Your task to perform on an android device: Search for pizza restaurants on Maps Image 0: 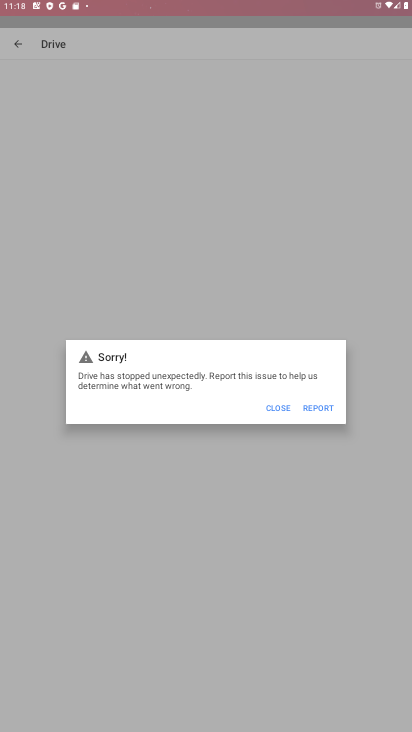
Step 0: drag from (208, 451) to (234, 203)
Your task to perform on an android device: Search for pizza restaurants on Maps Image 1: 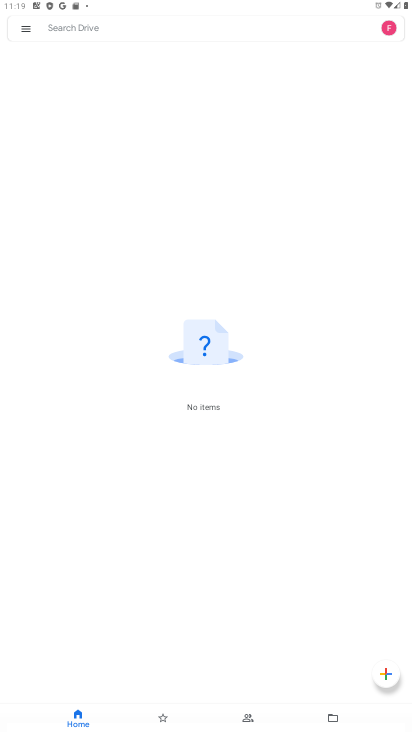
Step 1: press home button
Your task to perform on an android device: Search for pizza restaurants on Maps Image 2: 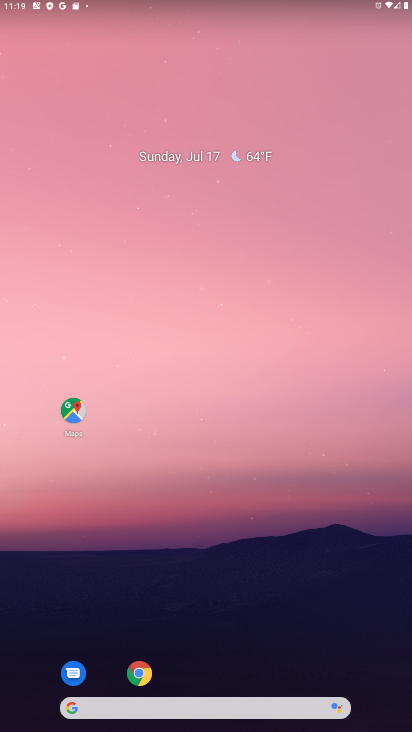
Step 2: drag from (196, 679) to (222, 204)
Your task to perform on an android device: Search for pizza restaurants on Maps Image 3: 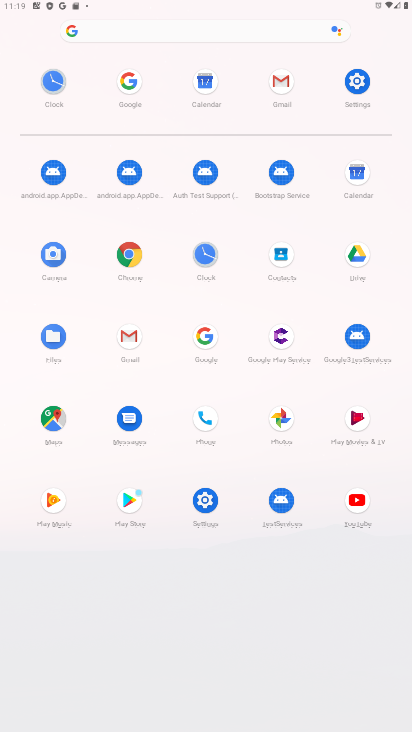
Step 3: click (54, 420)
Your task to perform on an android device: Search for pizza restaurants on Maps Image 4: 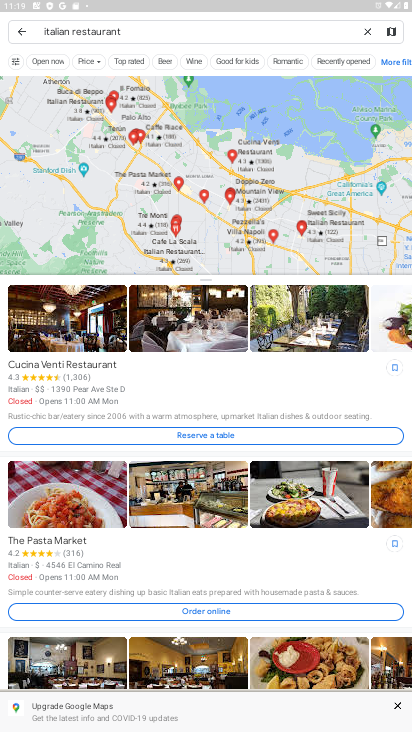
Step 4: click (362, 28)
Your task to perform on an android device: Search for pizza restaurants on Maps Image 5: 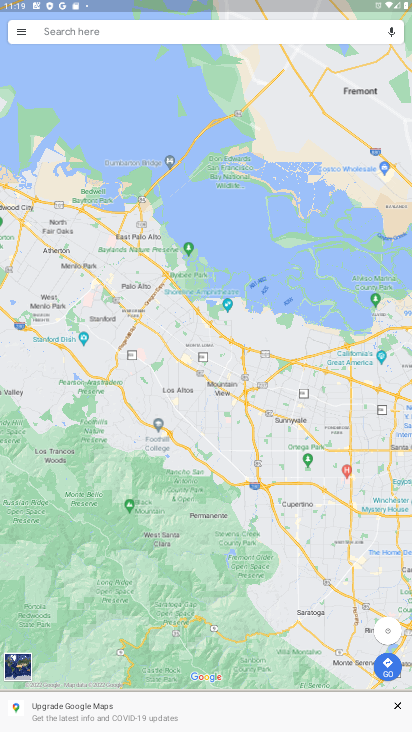
Step 5: click (190, 38)
Your task to perform on an android device: Search for pizza restaurants on Maps Image 6: 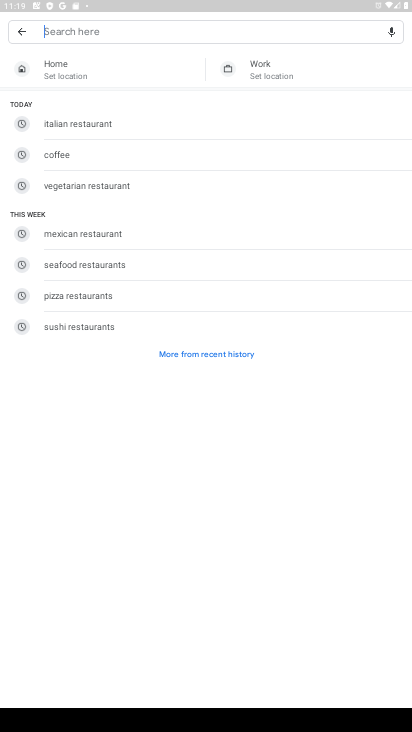
Step 6: click (101, 290)
Your task to perform on an android device: Search for pizza restaurants on Maps Image 7: 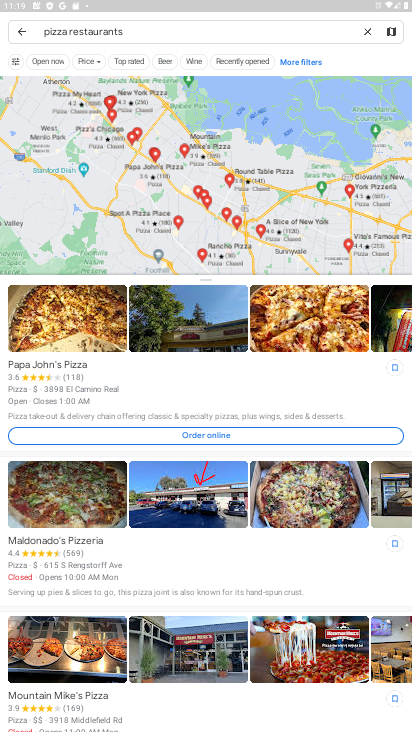
Step 7: task complete